Your task to perform on an android device: Open calendar and show me the fourth week of next month Image 0: 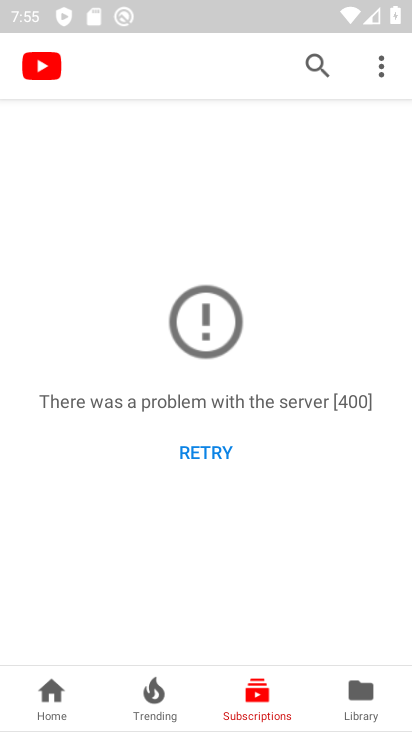
Step 0: press home button
Your task to perform on an android device: Open calendar and show me the fourth week of next month Image 1: 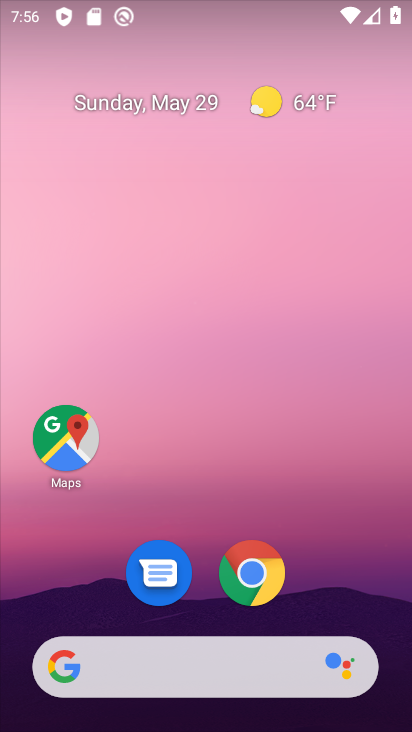
Step 1: drag from (44, 614) to (201, 163)
Your task to perform on an android device: Open calendar and show me the fourth week of next month Image 2: 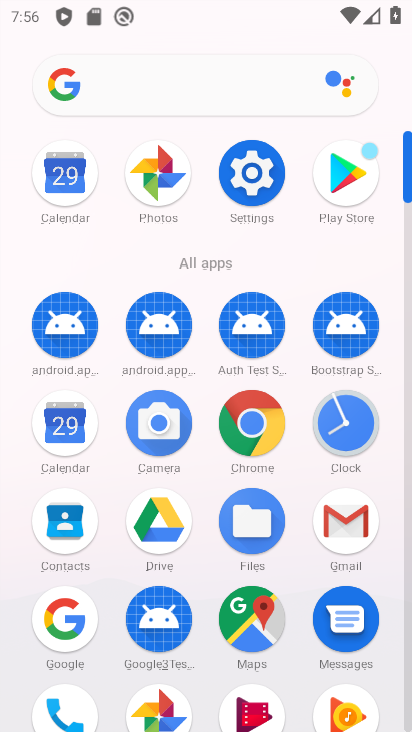
Step 2: click (78, 450)
Your task to perform on an android device: Open calendar and show me the fourth week of next month Image 3: 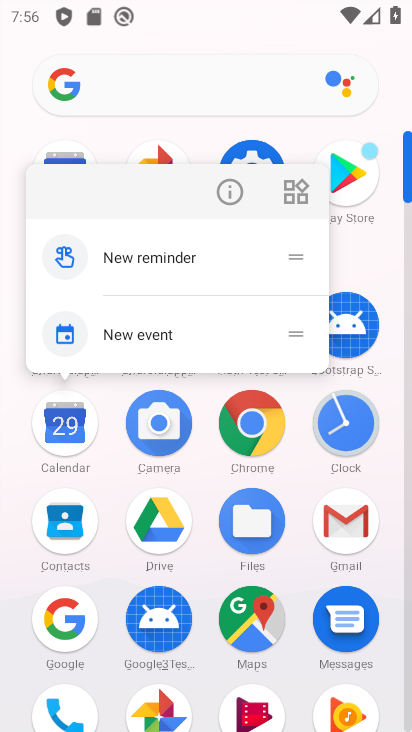
Step 3: click (79, 437)
Your task to perform on an android device: Open calendar and show me the fourth week of next month Image 4: 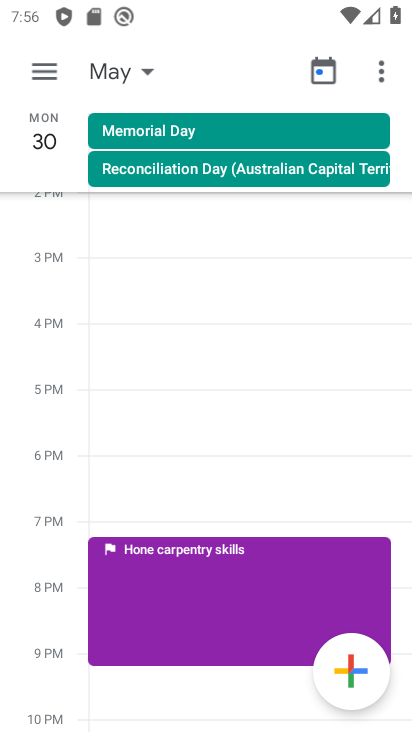
Step 4: click (129, 70)
Your task to perform on an android device: Open calendar and show me the fourth week of next month Image 5: 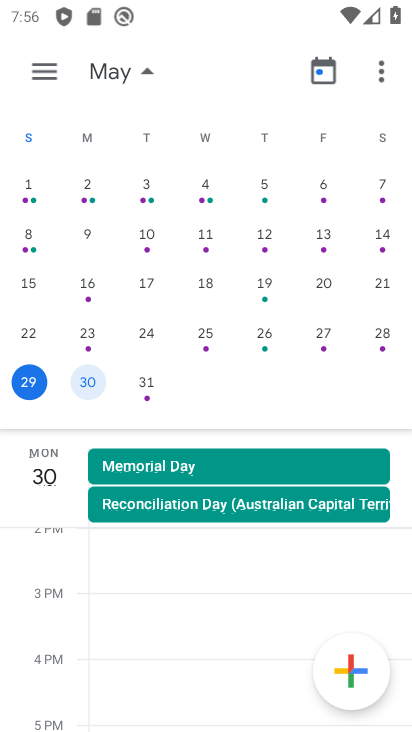
Step 5: drag from (345, 364) to (21, 322)
Your task to perform on an android device: Open calendar and show me the fourth week of next month Image 6: 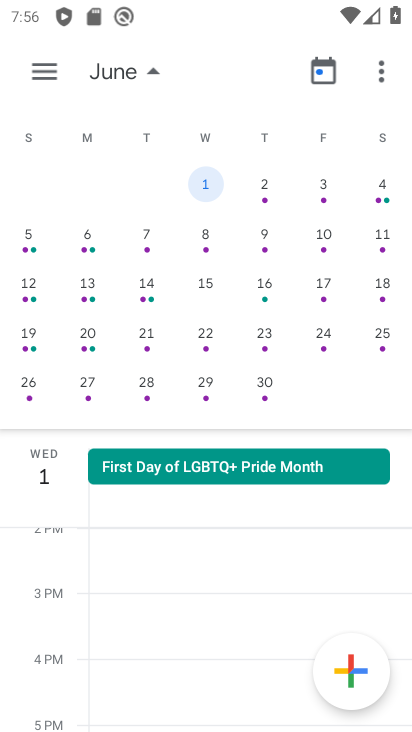
Step 6: click (31, 385)
Your task to perform on an android device: Open calendar and show me the fourth week of next month Image 7: 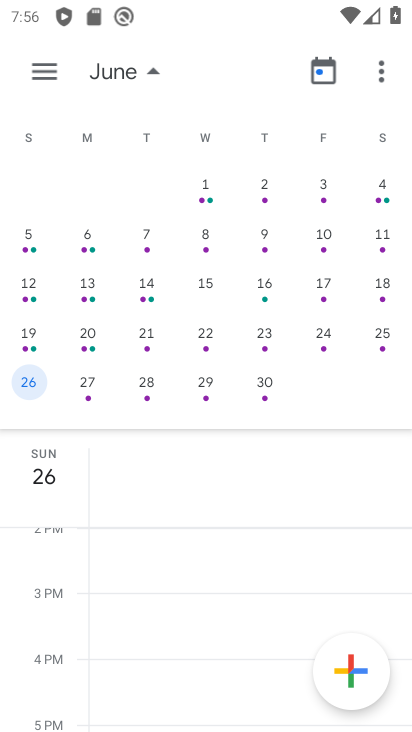
Step 7: click (58, 70)
Your task to perform on an android device: Open calendar and show me the fourth week of next month Image 8: 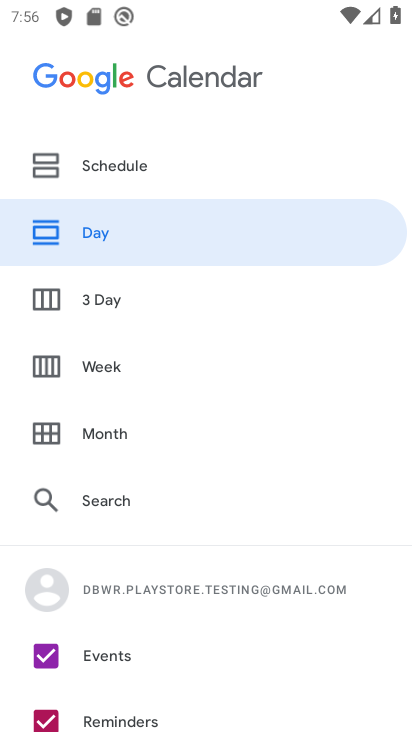
Step 8: click (164, 368)
Your task to perform on an android device: Open calendar and show me the fourth week of next month Image 9: 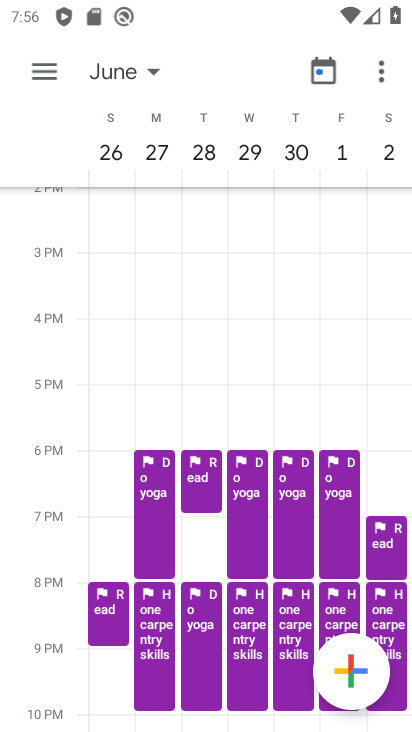
Step 9: task complete